Your task to perform on an android device: Go to CNN.com Image 0: 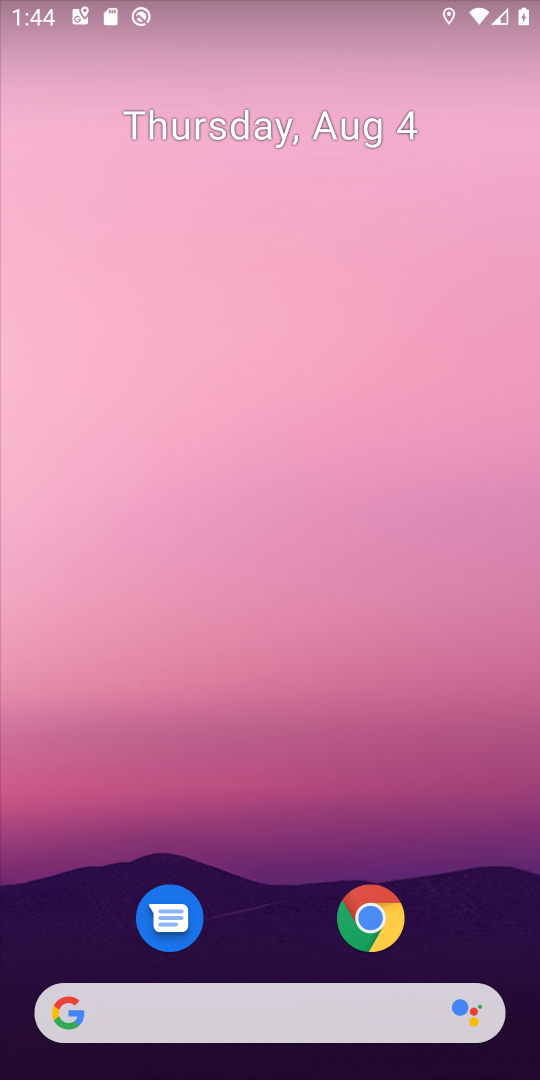
Step 0: click (362, 923)
Your task to perform on an android device: Go to CNN.com Image 1: 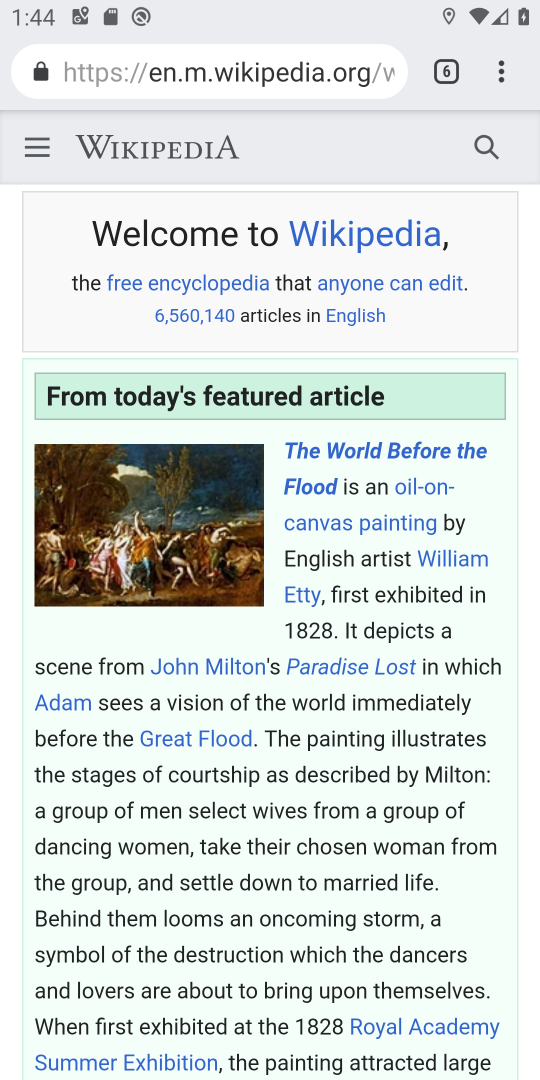
Step 1: click (452, 73)
Your task to perform on an android device: Go to CNN.com Image 2: 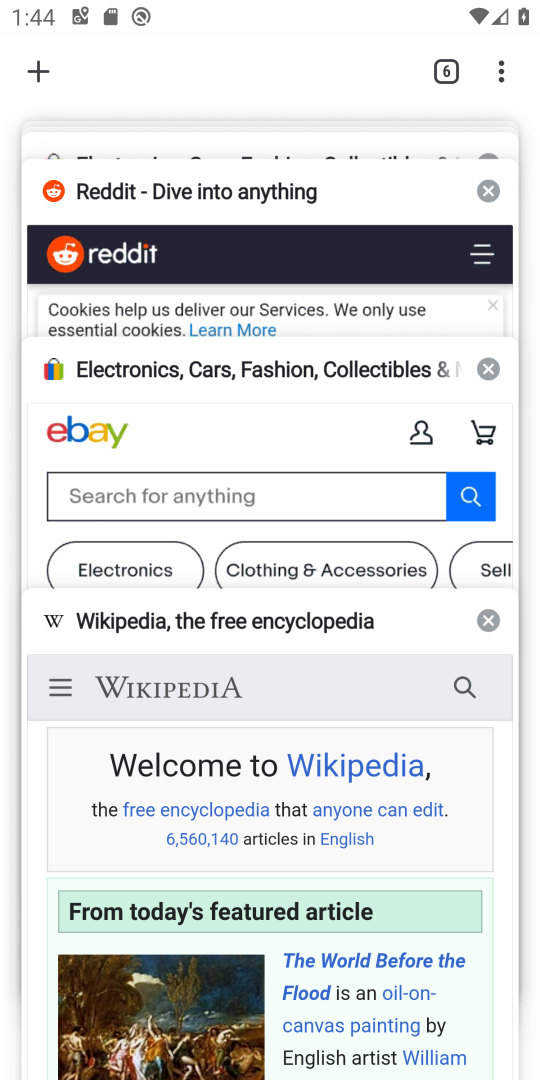
Step 2: click (40, 80)
Your task to perform on an android device: Go to CNN.com Image 3: 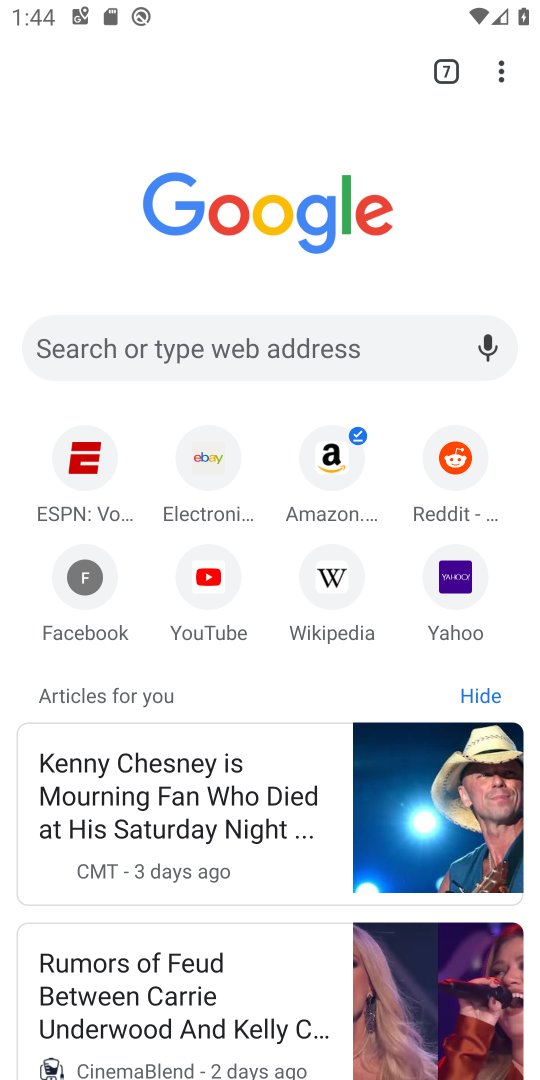
Step 3: type "CNN.com"
Your task to perform on an android device: Go to CNN.com Image 4: 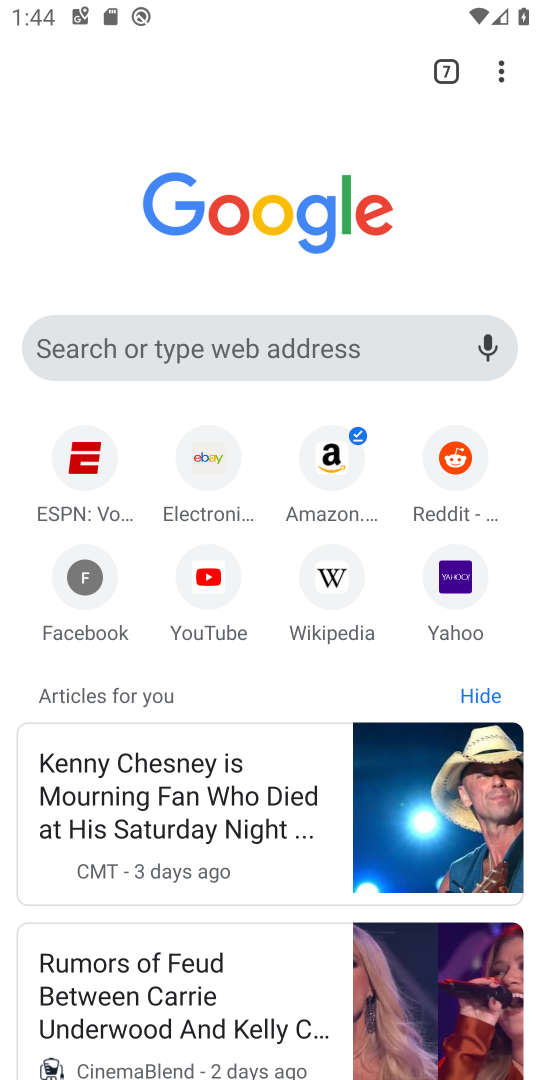
Step 4: click (263, 356)
Your task to perform on an android device: Go to CNN.com Image 5: 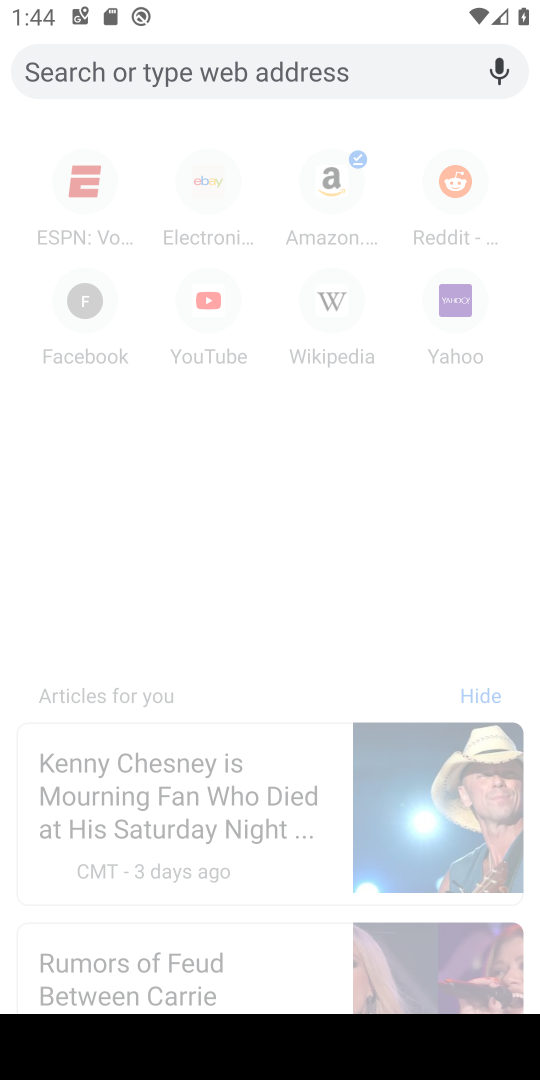
Step 5: type "CNN.com"
Your task to perform on an android device: Go to CNN.com Image 6: 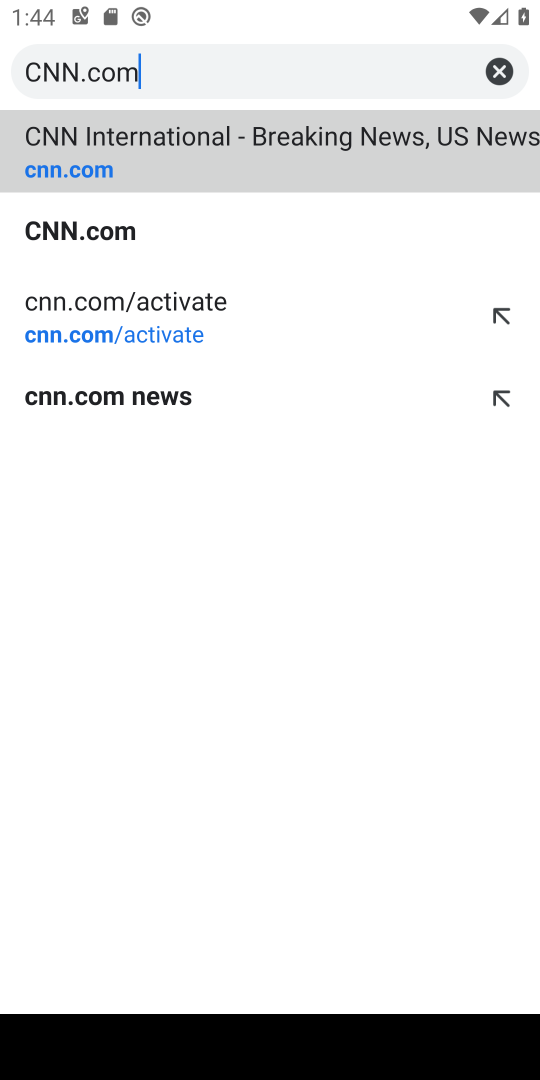
Step 6: type ""
Your task to perform on an android device: Go to CNN.com Image 7: 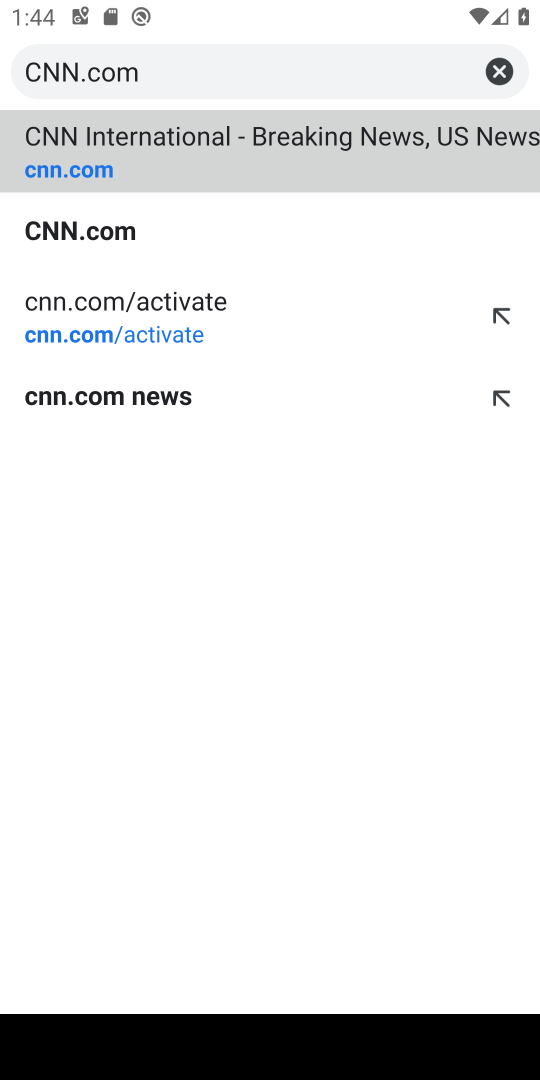
Step 7: click (147, 170)
Your task to perform on an android device: Go to CNN.com Image 8: 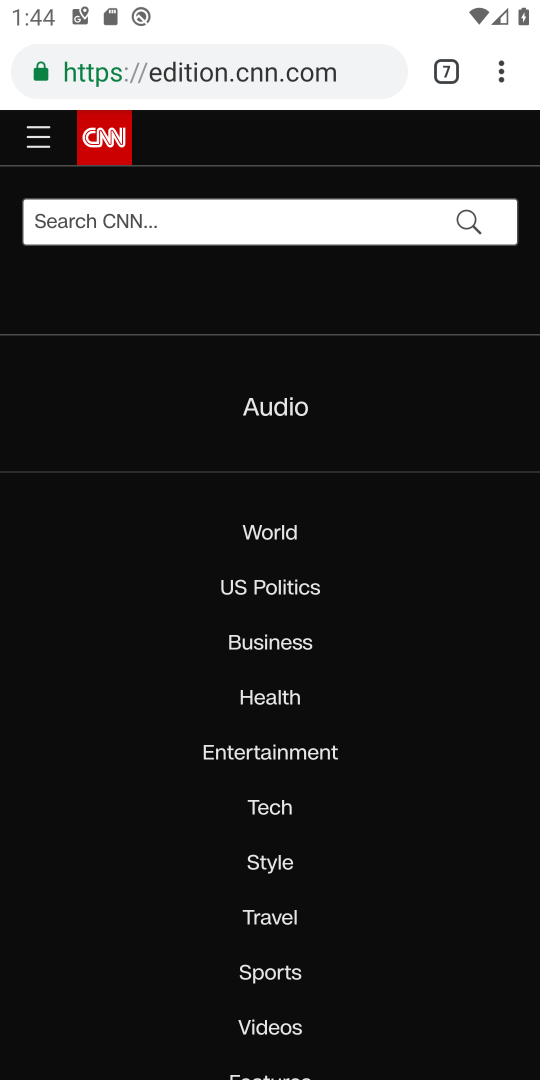
Step 8: task complete